Your task to perform on an android device: open app "PUBG MOBILE" (install if not already installed) Image 0: 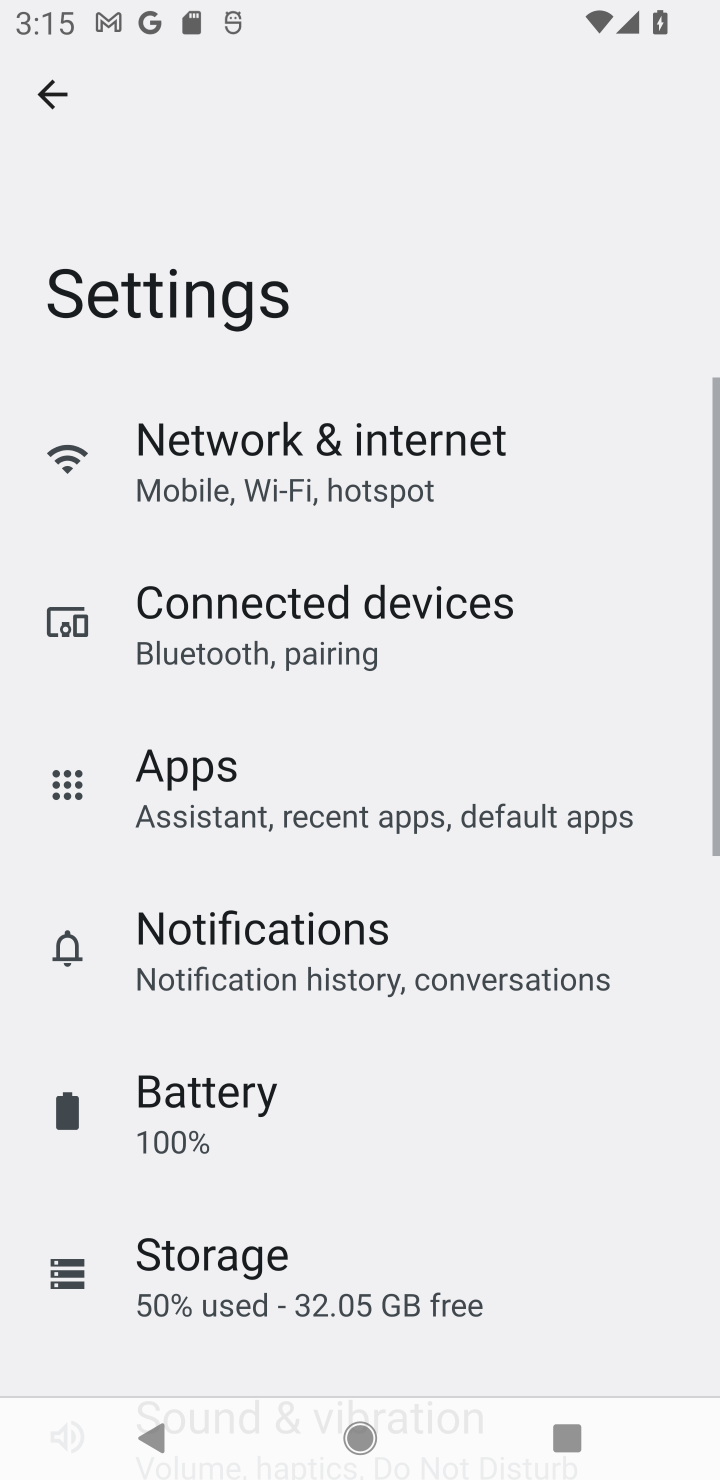
Step 0: press home button
Your task to perform on an android device: open app "PUBG MOBILE" (install if not already installed) Image 1: 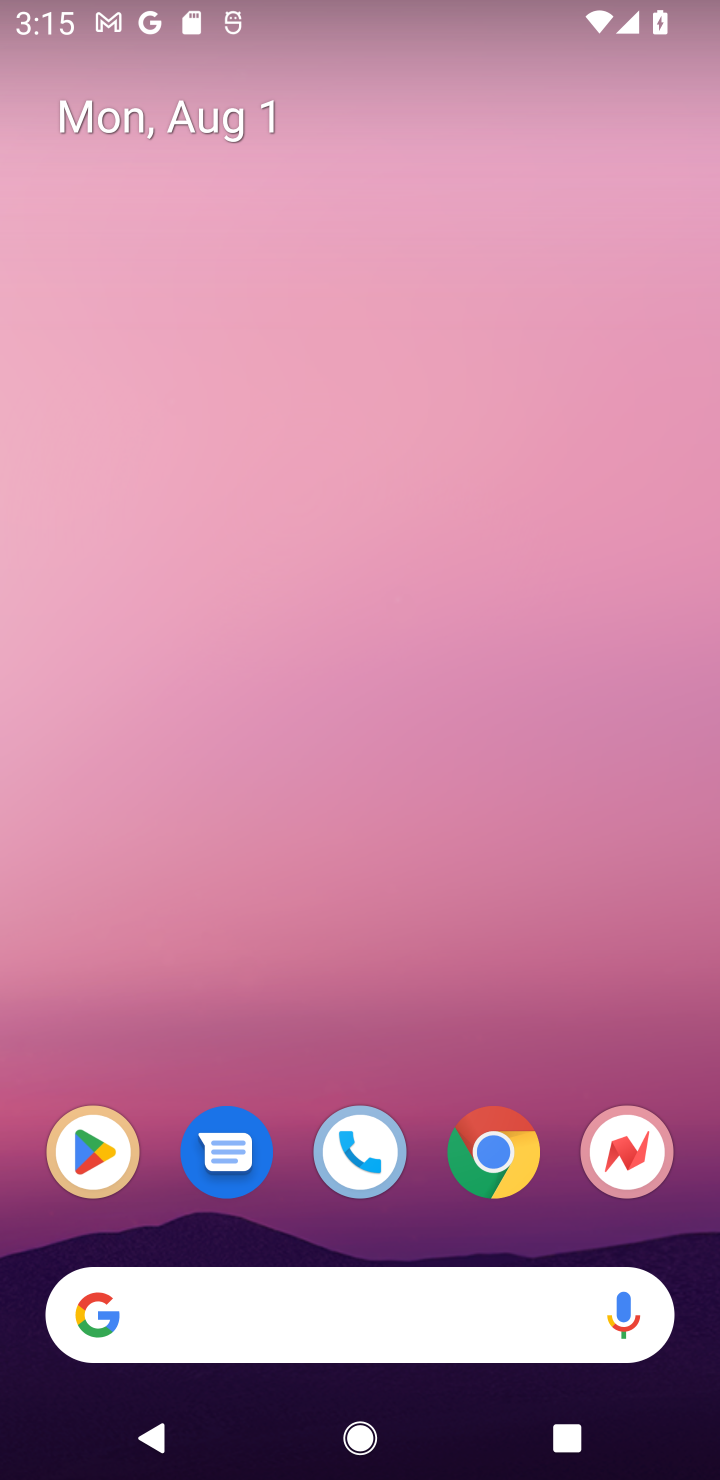
Step 1: click (100, 1139)
Your task to perform on an android device: open app "PUBG MOBILE" (install if not already installed) Image 2: 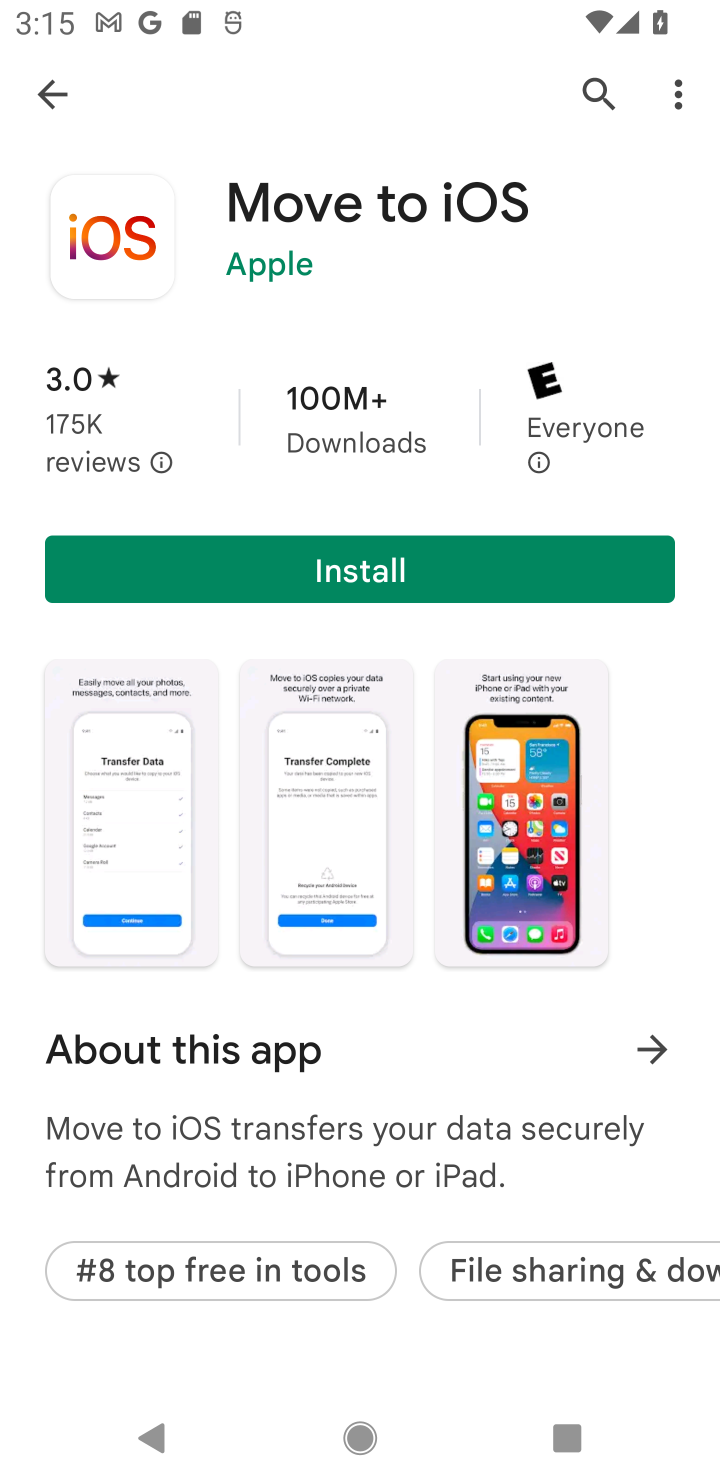
Step 2: click (45, 87)
Your task to perform on an android device: open app "PUBG MOBILE" (install if not already installed) Image 3: 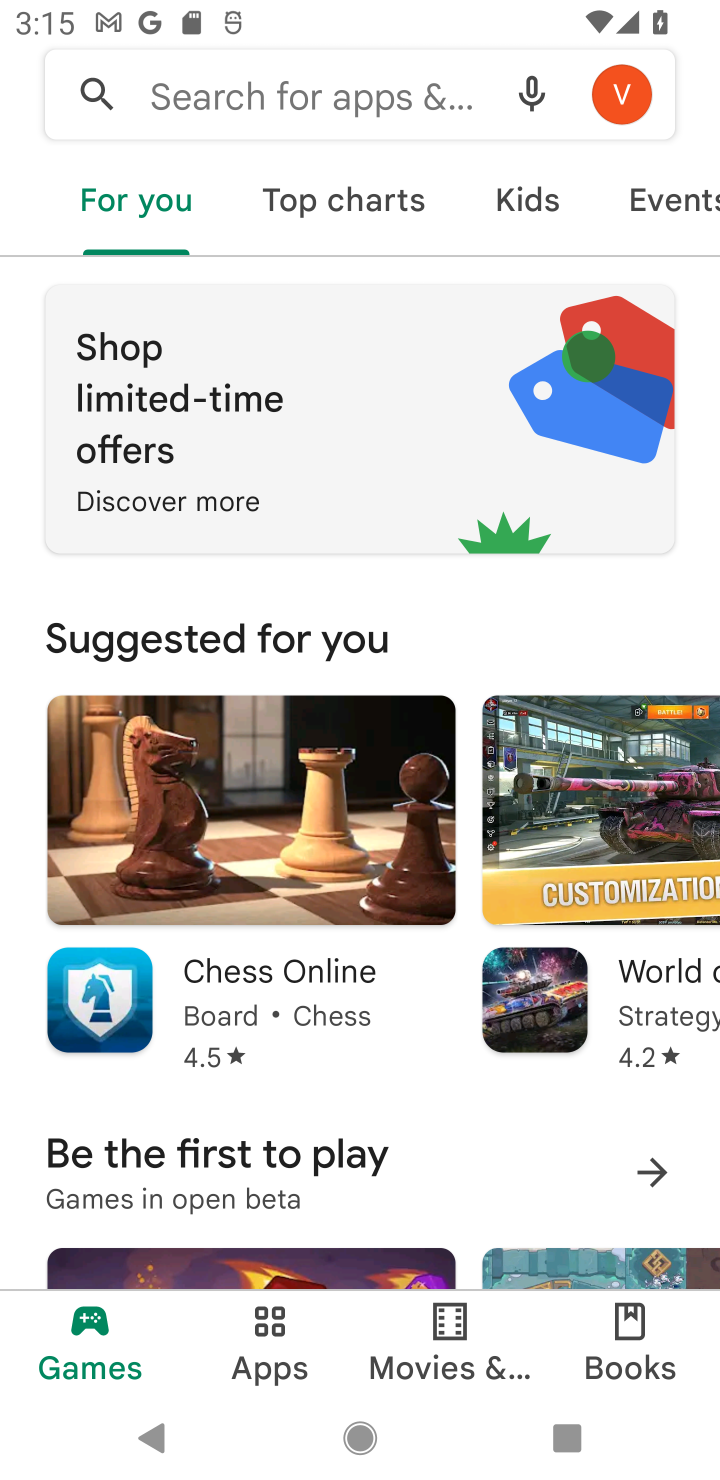
Step 3: click (218, 101)
Your task to perform on an android device: open app "PUBG MOBILE" (install if not already installed) Image 4: 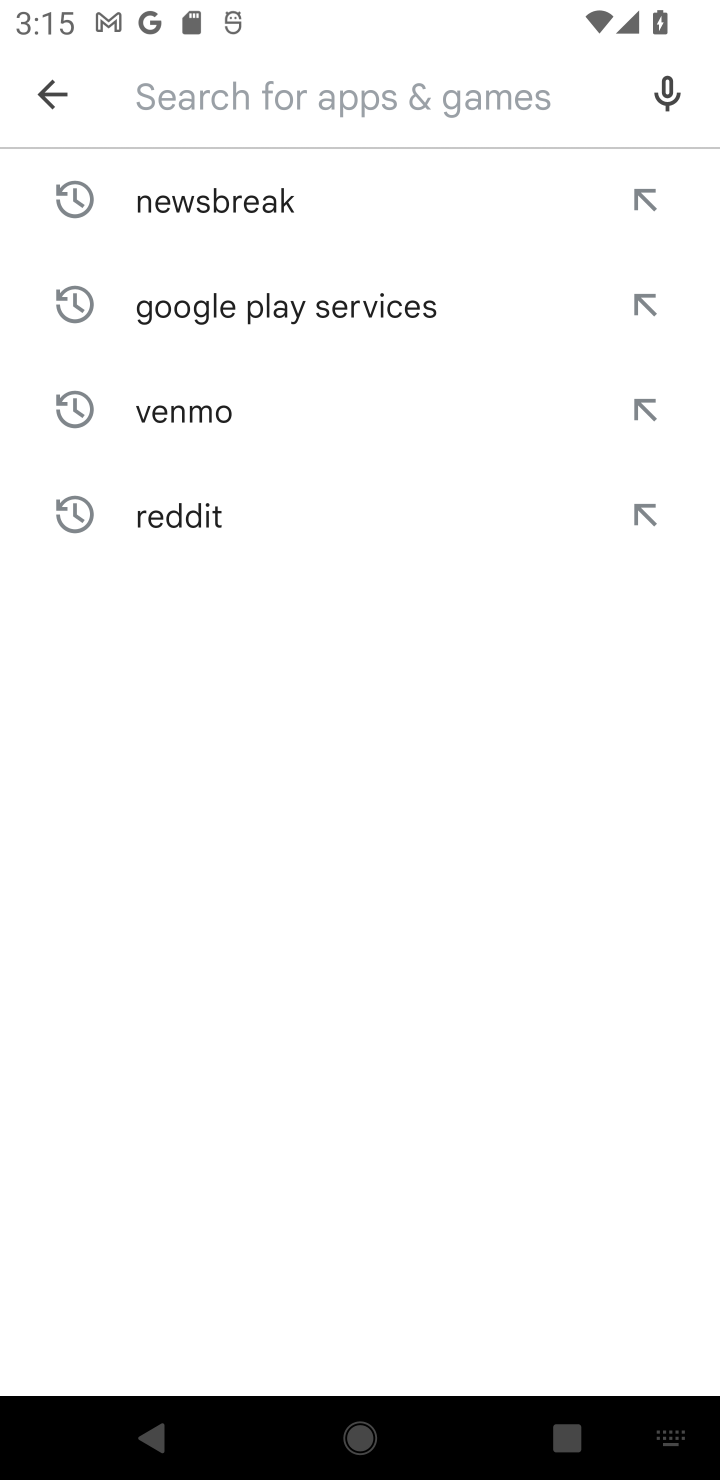
Step 4: type "PUBG MOBILE"
Your task to perform on an android device: open app "PUBG MOBILE" (install if not already installed) Image 5: 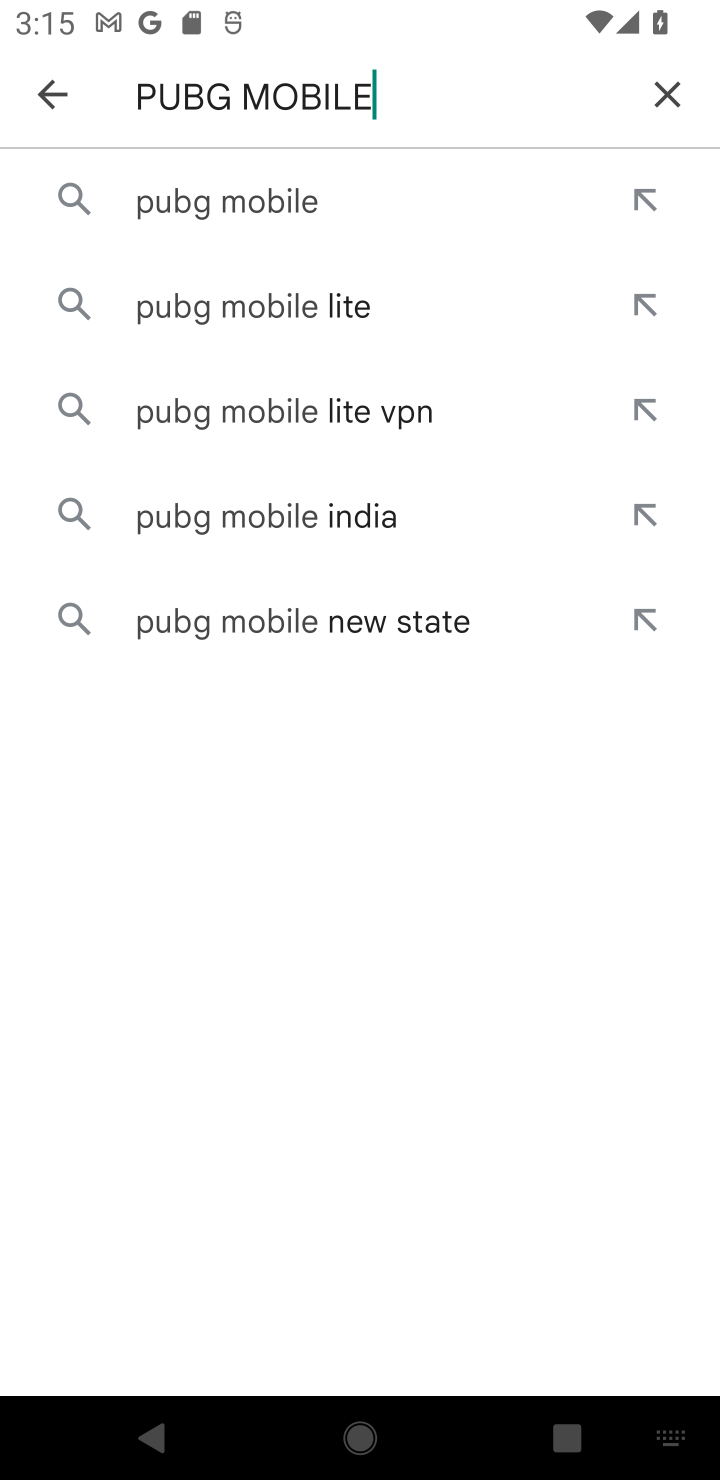
Step 5: click (258, 190)
Your task to perform on an android device: open app "PUBG MOBILE" (install if not already installed) Image 6: 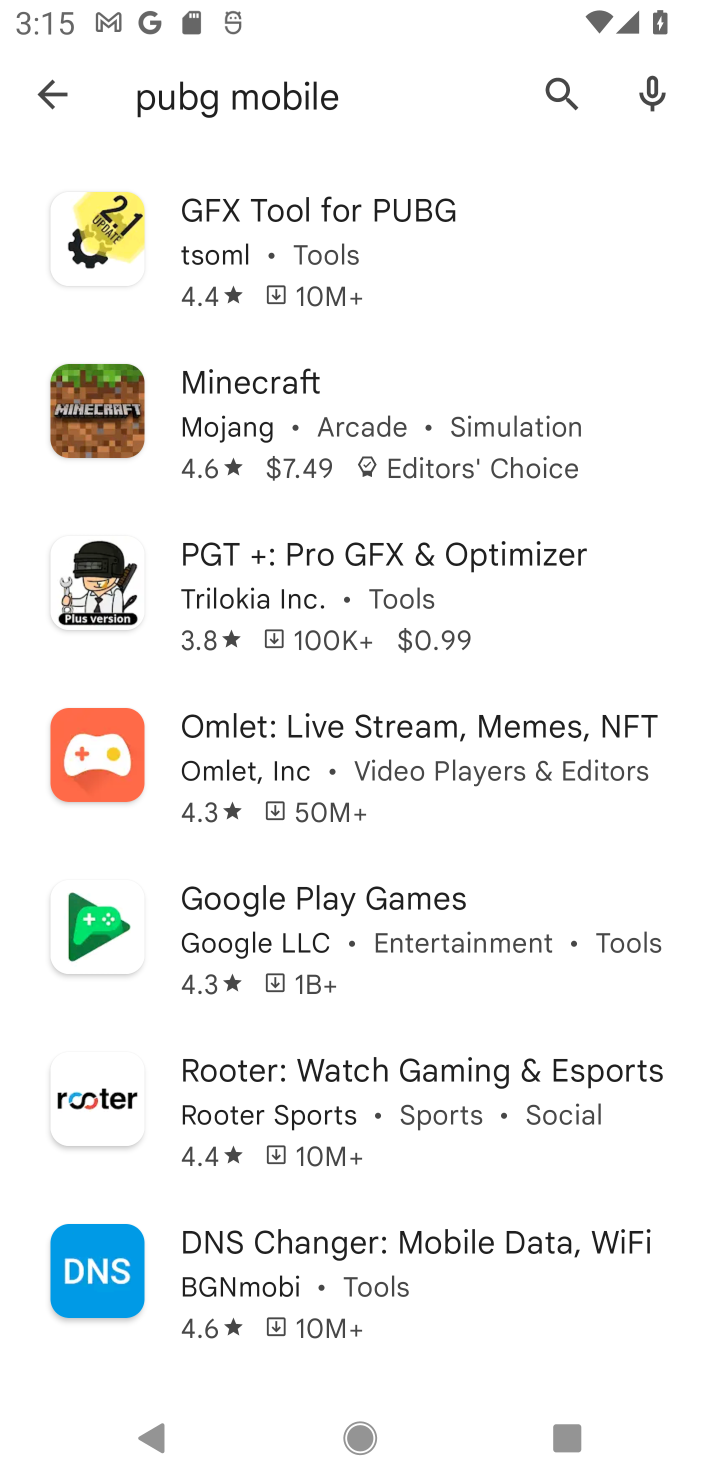
Step 6: task complete